Your task to perform on an android device: open app "NewsBreak: Local News & Alerts" Image 0: 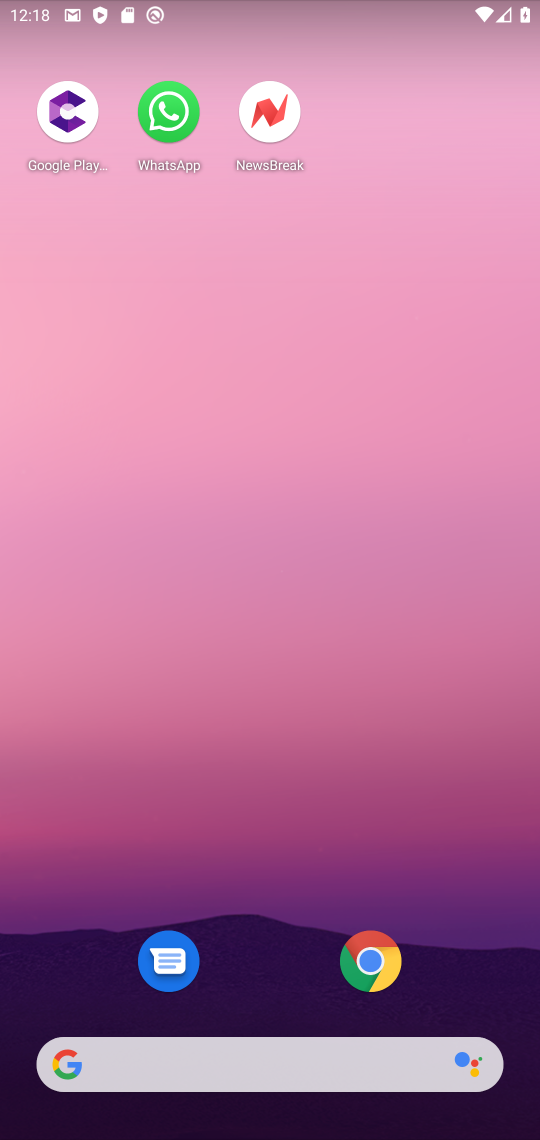
Step 0: drag from (301, 1017) to (297, 294)
Your task to perform on an android device: open app "NewsBreak: Local News & Alerts" Image 1: 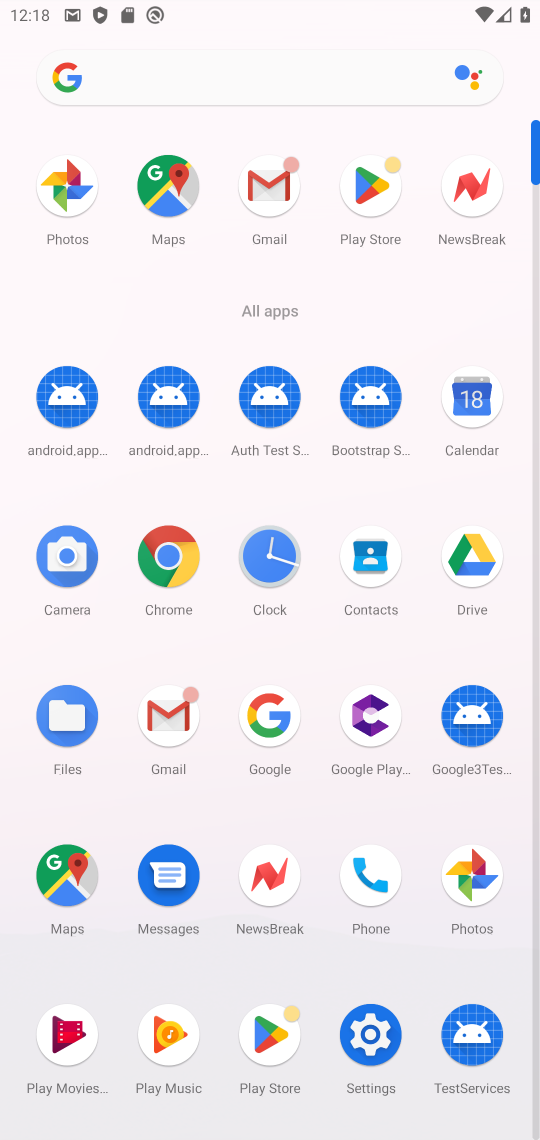
Step 1: click (361, 190)
Your task to perform on an android device: open app "NewsBreak: Local News & Alerts" Image 2: 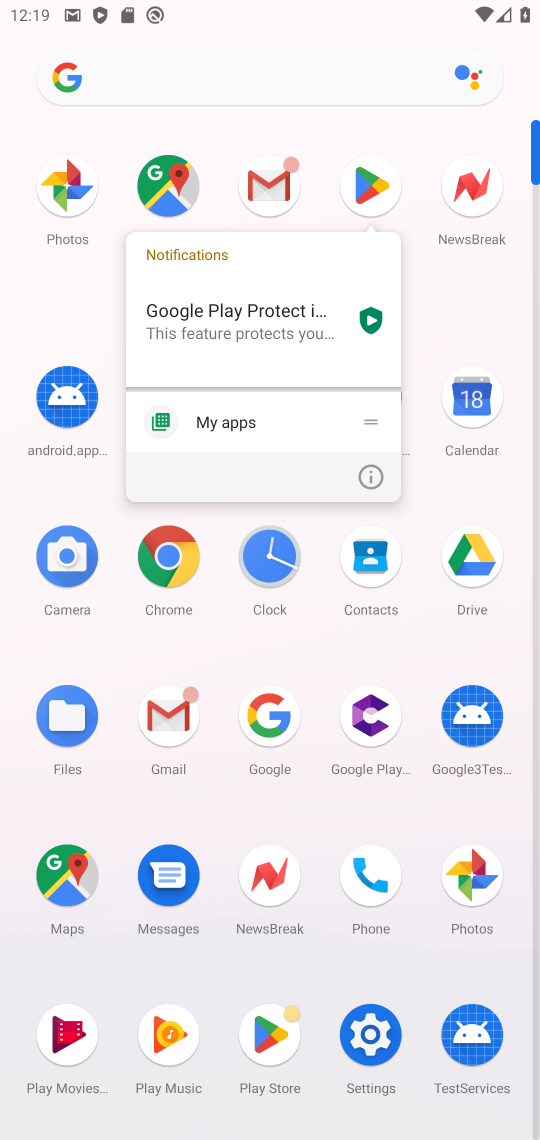
Step 2: click (372, 203)
Your task to perform on an android device: open app "NewsBreak: Local News & Alerts" Image 3: 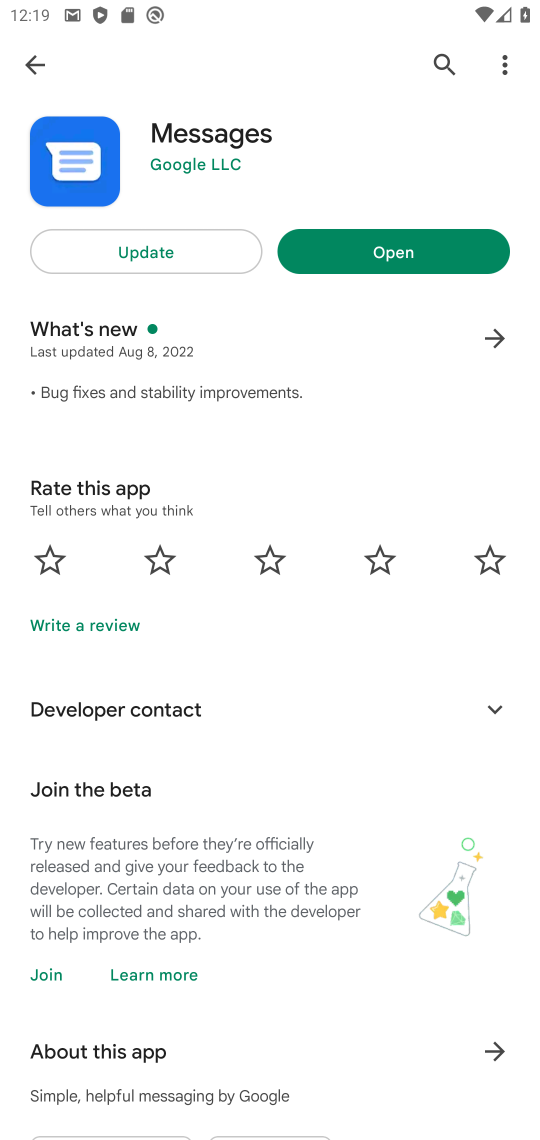
Step 3: click (39, 54)
Your task to perform on an android device: open app "NewsBreak: Local News & Alerts" Image 4: 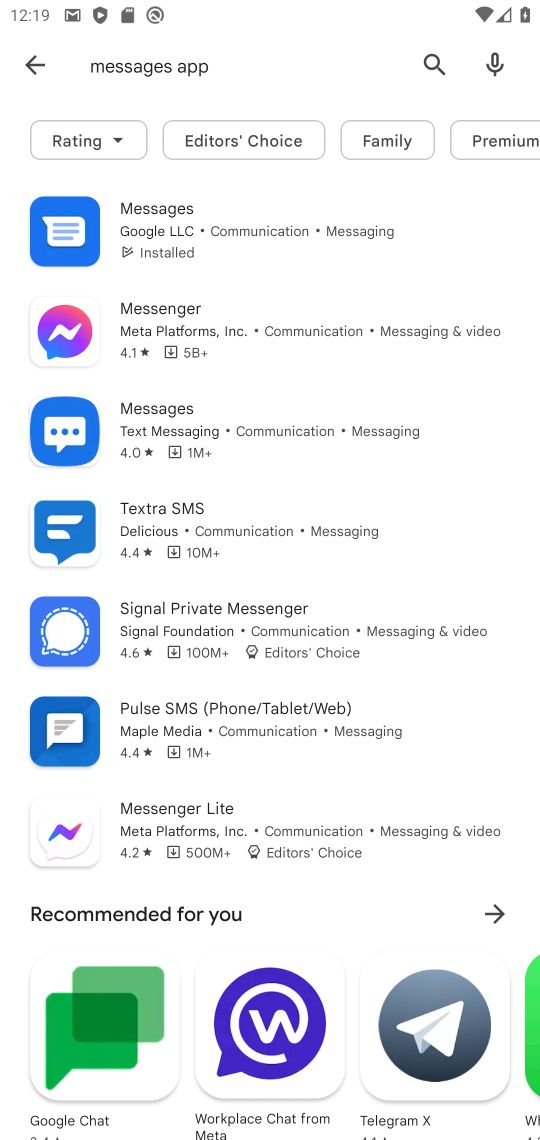
Step 4: click (34, 56)
Your task to perform on an android device: open app "NewsBreak: Local News & Alerts" Image 5: 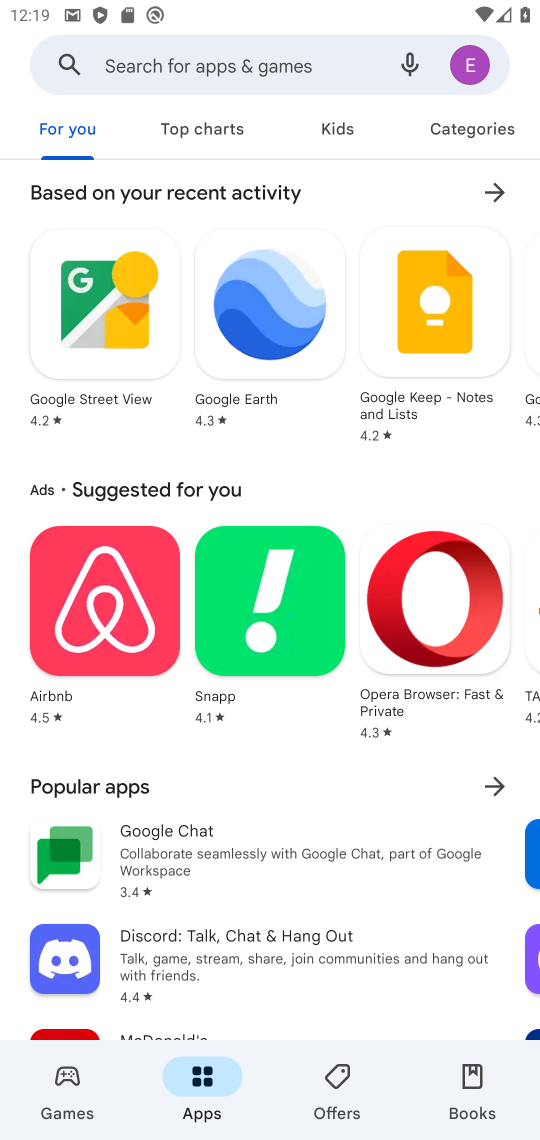
Step 5: click (256, 59)
Your task to perform on an android device: open app "NewsBreak: Local News & Alerts" Image 6: 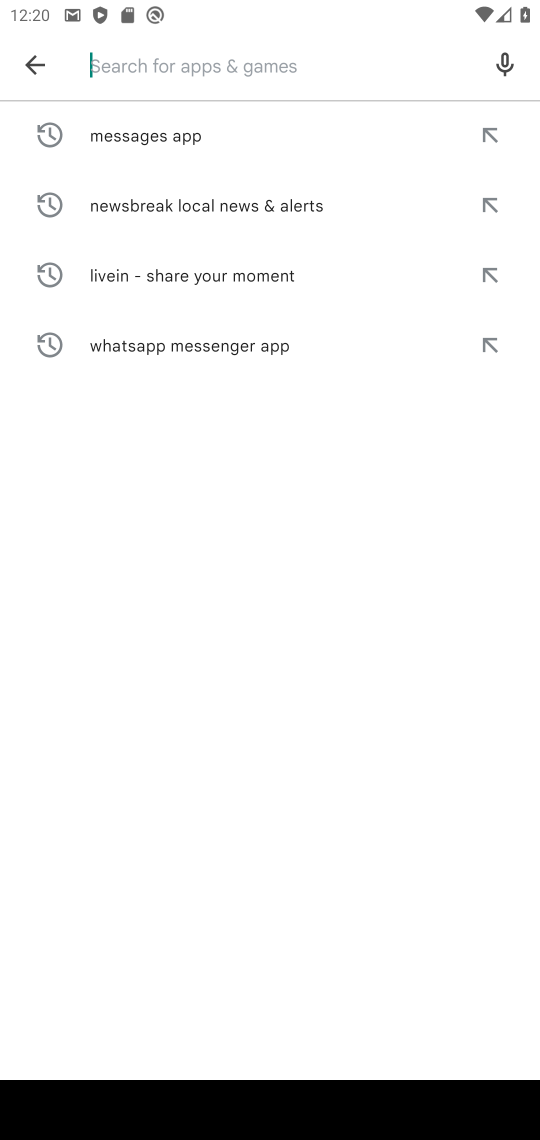
Step 6: type "NewsBreak: Local News & Alerts "
Your task to perform on an android device: open app "NewsBreak: Local News & Alerts" Image 7: 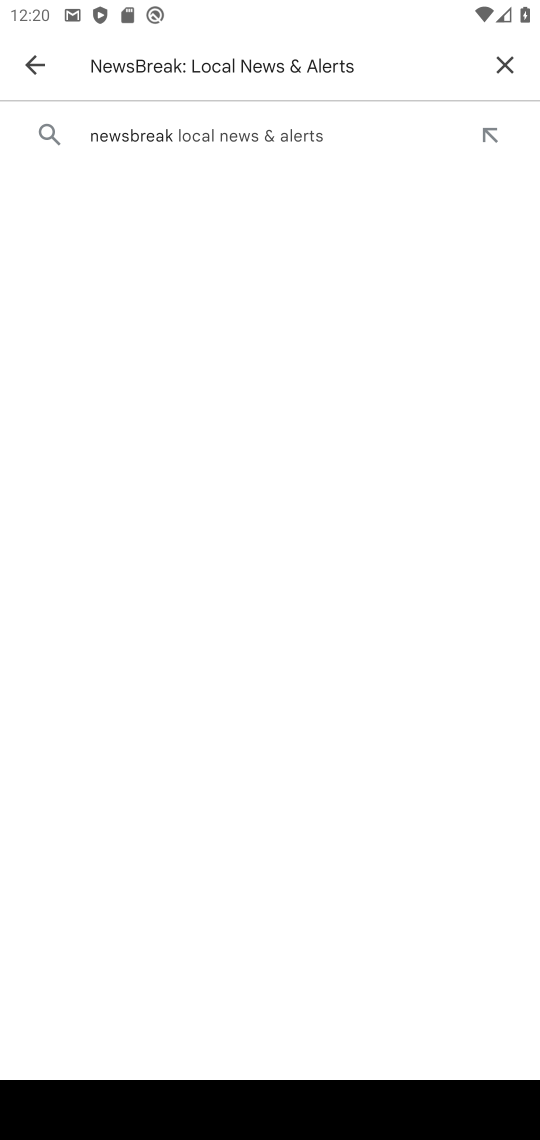
Step 7: click (184, 138)
Your task to perform on an android device: open app "NewsBreak: Local News & Alerts" Image 8: 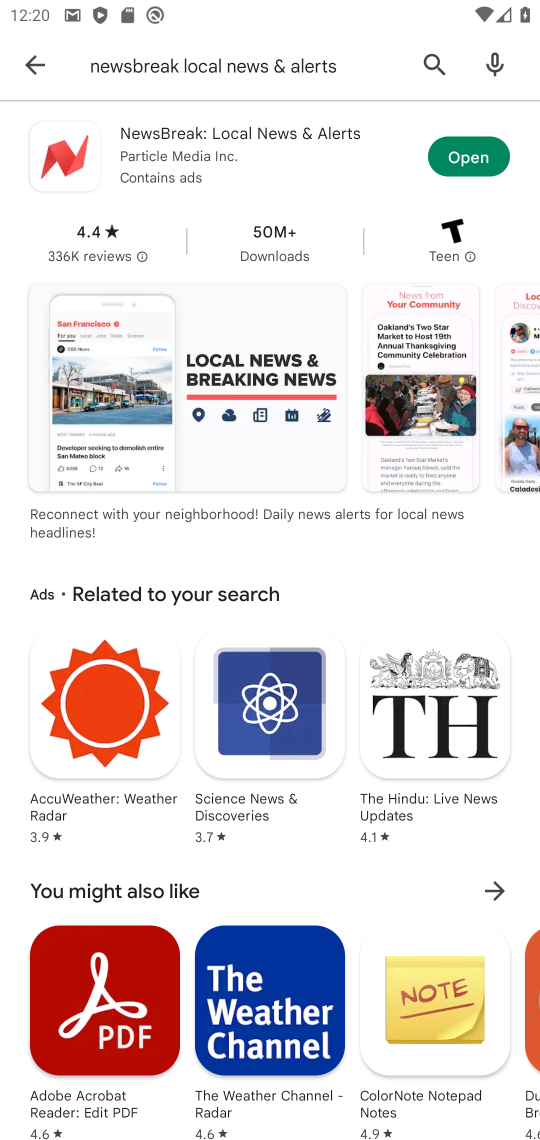
Step 8: click (475, 163)
Your task to perform on an android device: open app "NewsBreak: Local News & Alerts" Image 9: 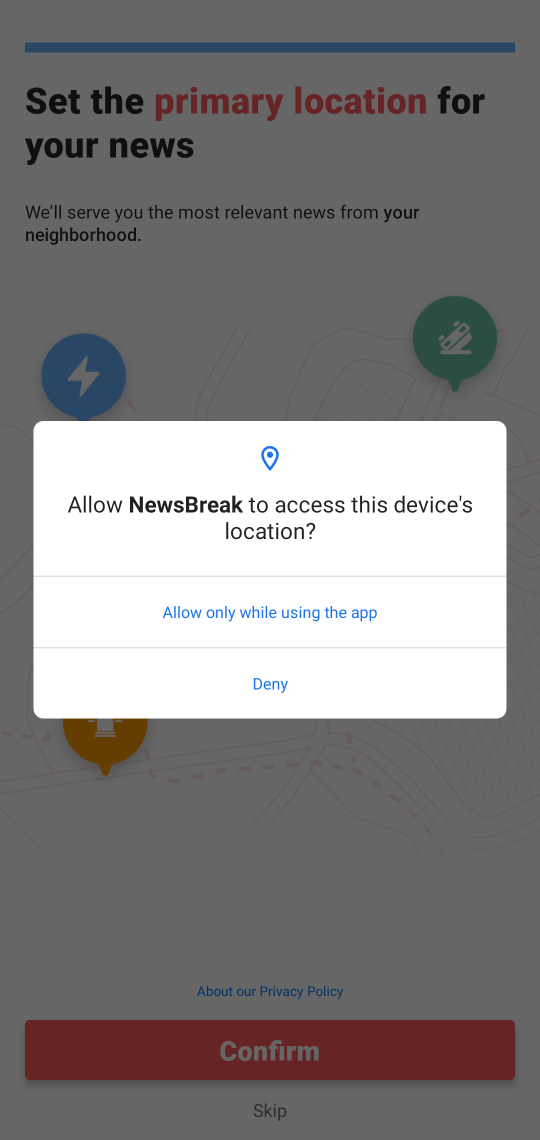
Step 9: click (315, 608)
Your task to perform on an android device: open app "NewsBreak: Local News & Alerts" Image 10: 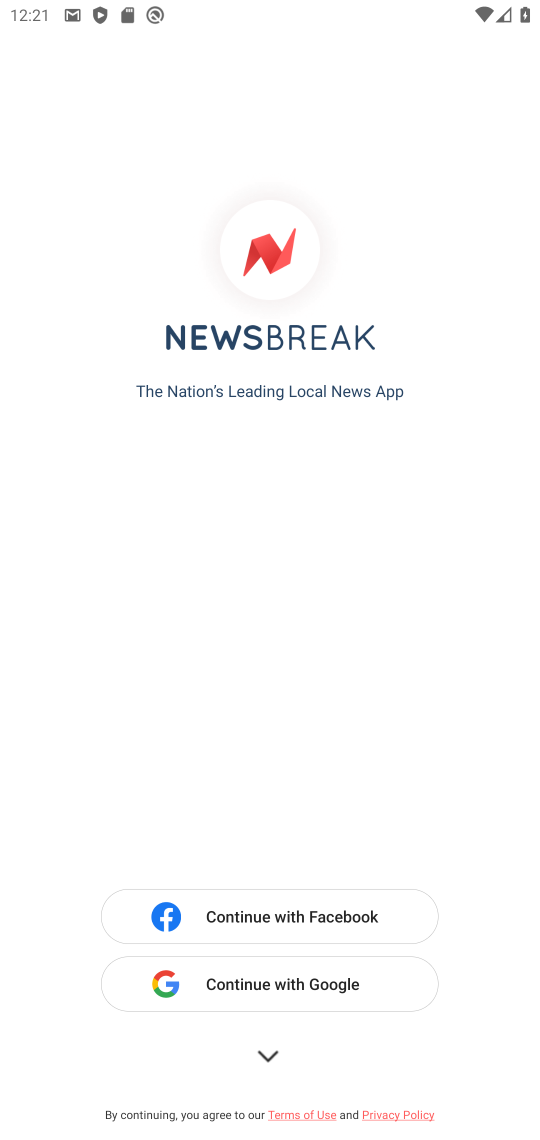
Step 10: task complete